Your task to perform on an android device: Open the map Image 0: 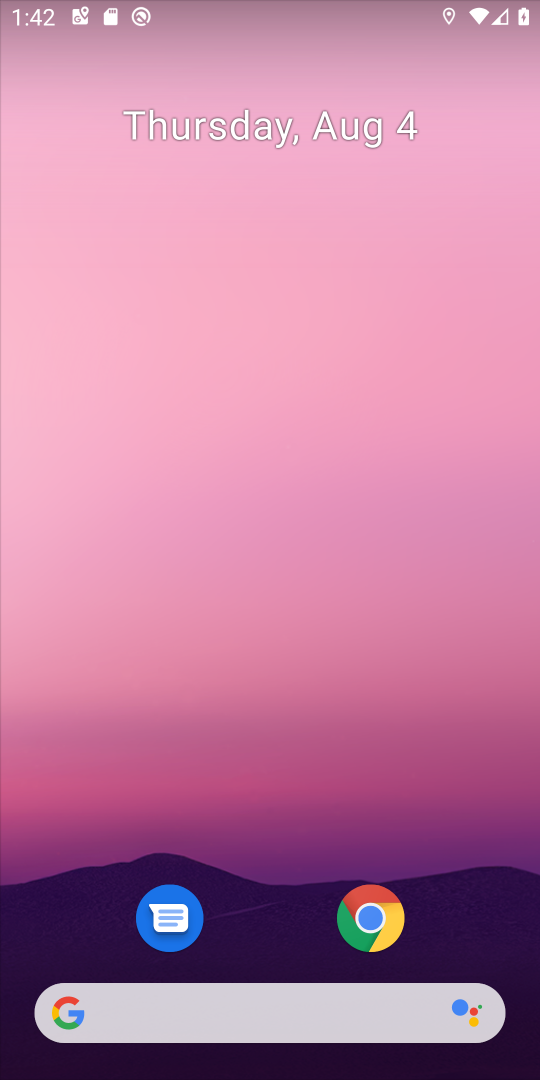
Step 0: drag from (257, 717) to (208, 403)
Your task to perform on an android device: Open the map Image 1: 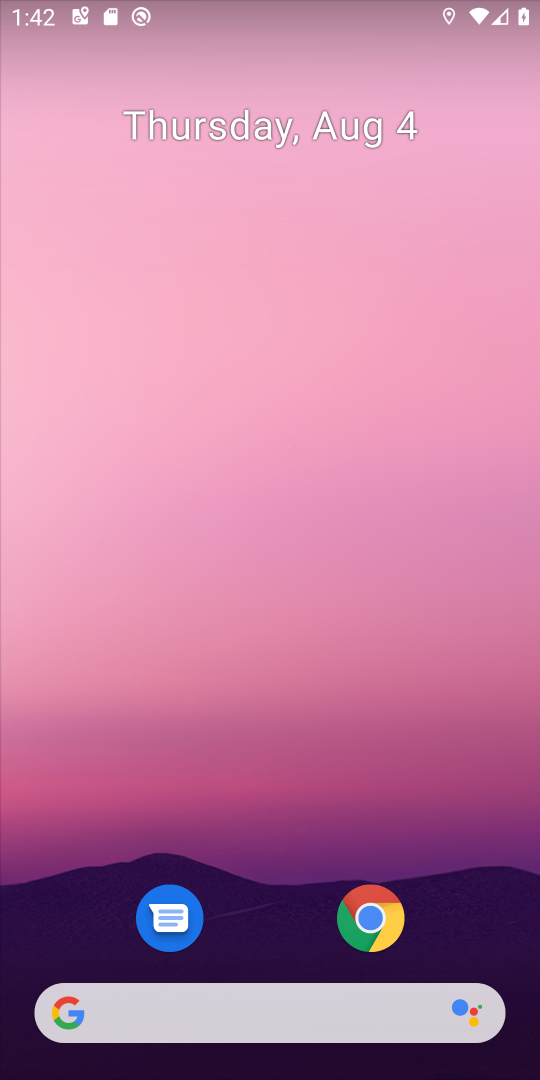
Step 1: drag from (266, 908) to (209, 373)
Your task to perform on an android device: Open the map Image 2: 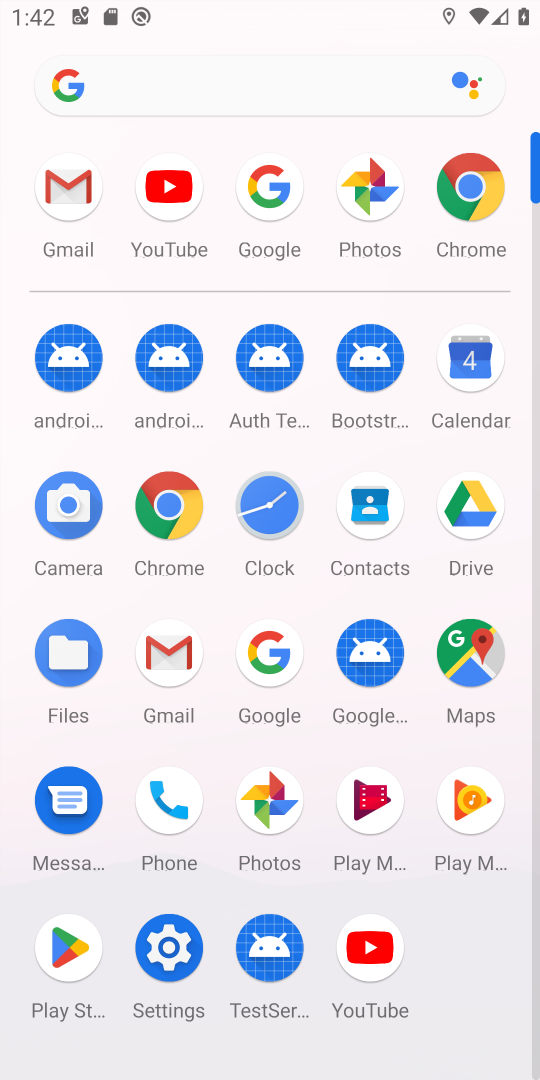
Step 2: click (438, 645)
Your task to perform on an android device: Open the map Image 3: 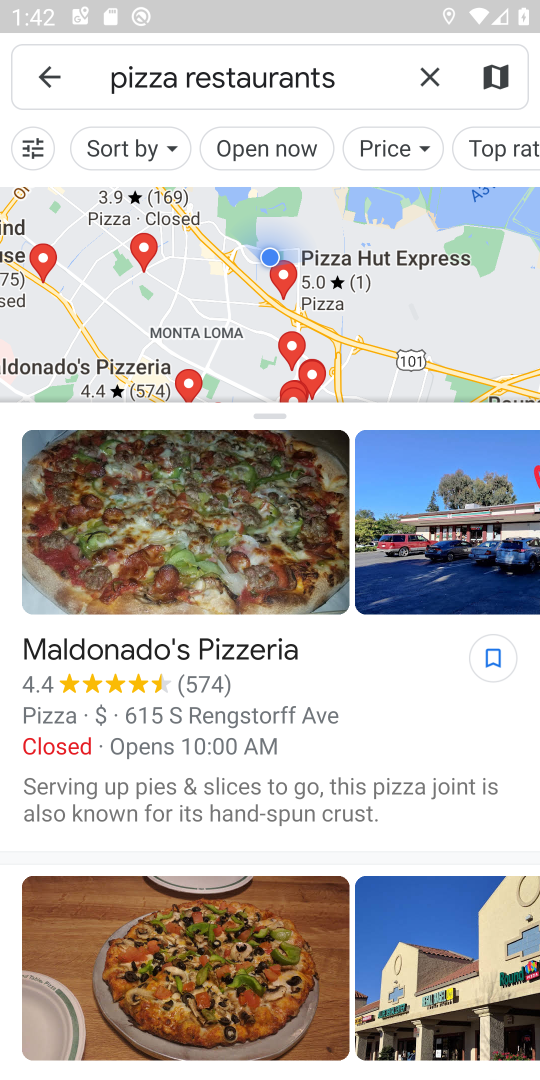
Step 3: task complete